Your task to perform on an android device: open wifi settings Image 0: 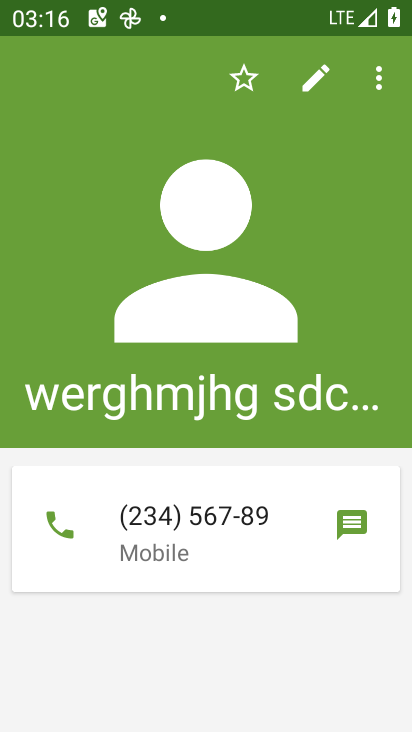
Step 0: press home button
Your task to perform on an android device: open wifi settings Image 1: 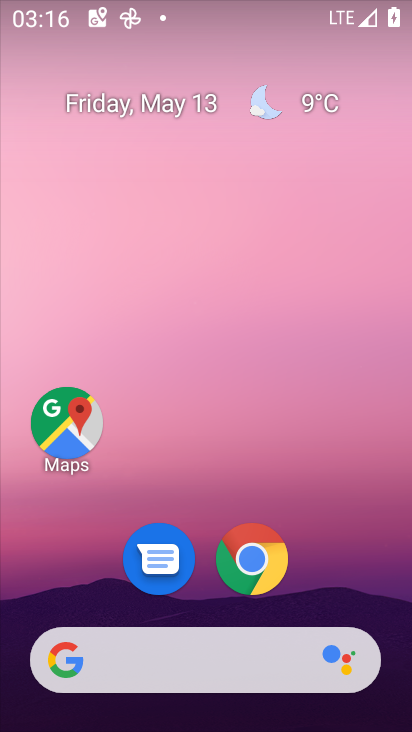
Step 1: drag from (396, 629) to (361, 331)
Your task to perform on an android device: open wifi settings Image 2: 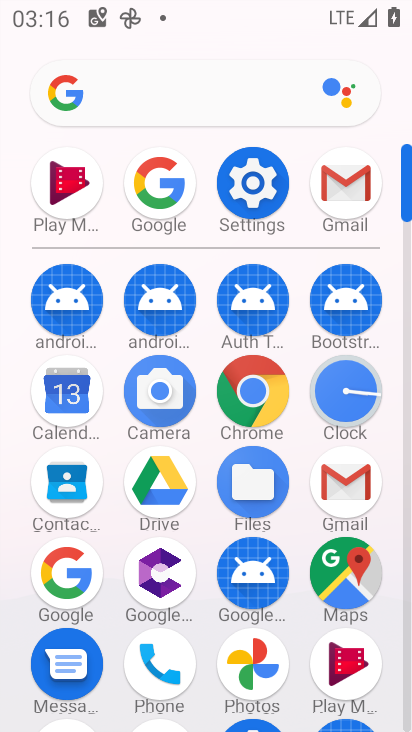
Step 2: click (269, 184)
Your task to perform on an android device: open wifi settings Image 3: 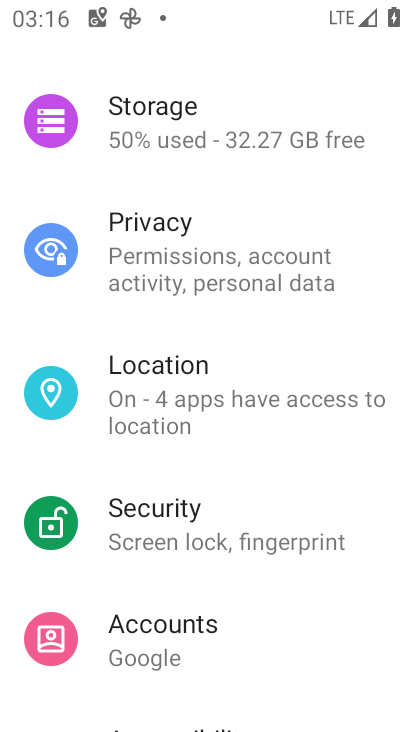
Step 3: drag from (355, 151) to (346, 414)
Your task to perform on an android device: open wifi settings Image 4: 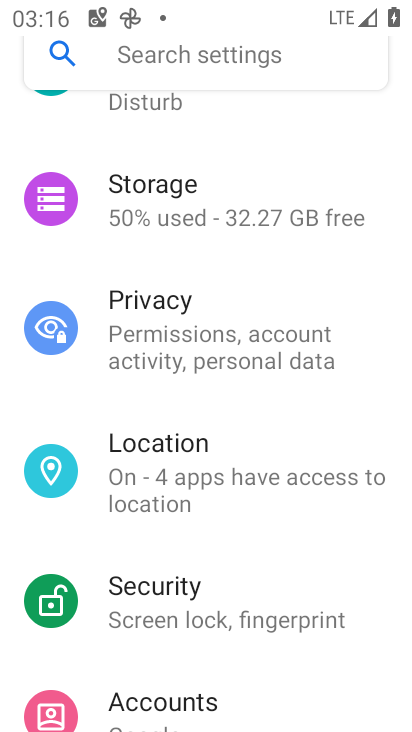
Step 4: drag from (320, 151) to (318, 499)
Your task to perform on an android device: open wifi settings Image 5: 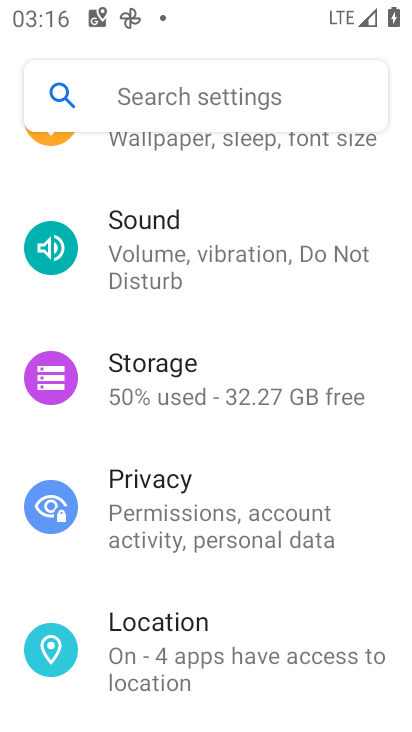
Step 5: drag from (305, 174) to (347, 562)
Your task to perform on an android device: open wifi settings Image 6: 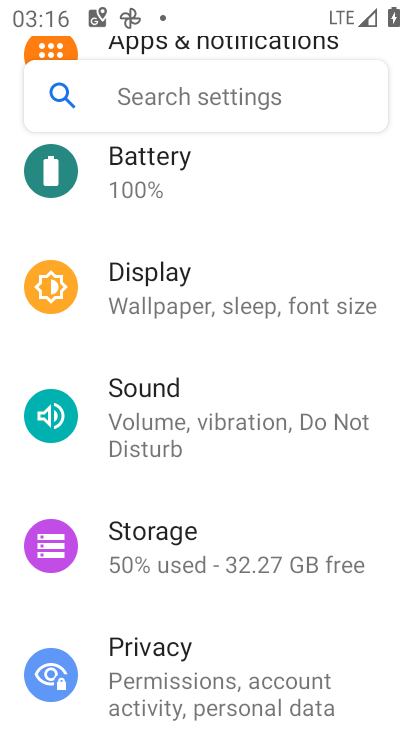
Step 6: drag from (310, 294) to (316, 550)
Your task to perform on an android device: open wifi settings Image 7: 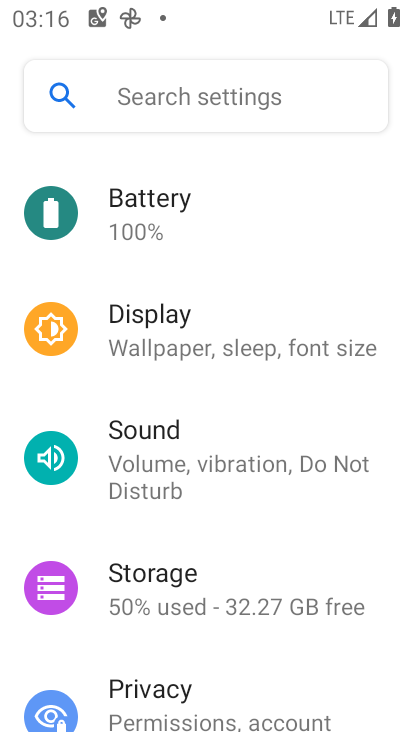
Step 7: drag from (299, 249) to (328, 564)
Your task to perform on an android device: open wifi settings Image 8: 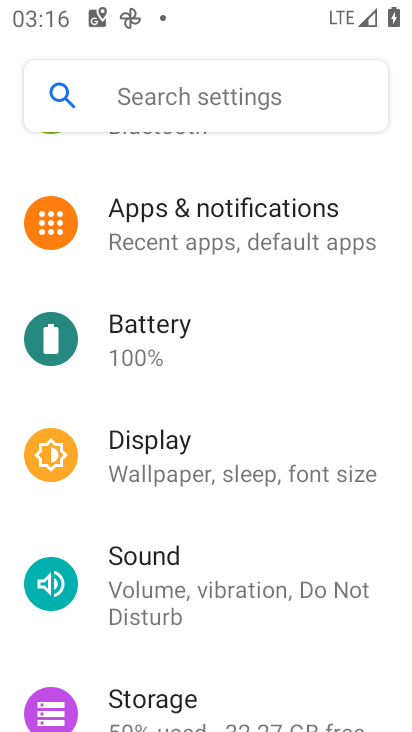
Step 8: drag from (319, 153) to (336, 622)
Your task to perform on an android device: open wifi settings Image 9: 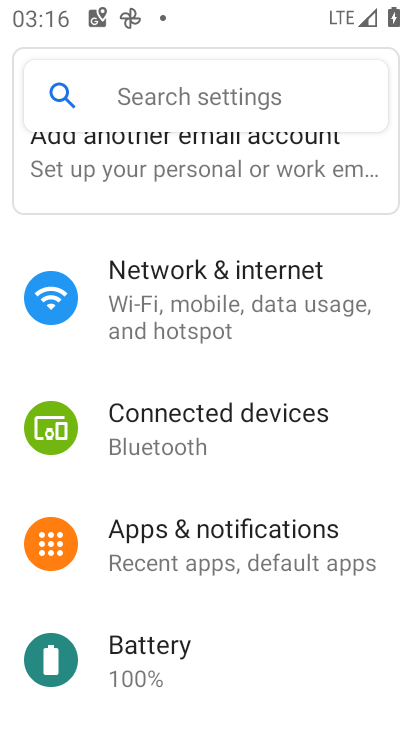
Step 9: drag from (297, 217) to (342, 457)
Your task to perform on an android device: open wifi settings Image 10: 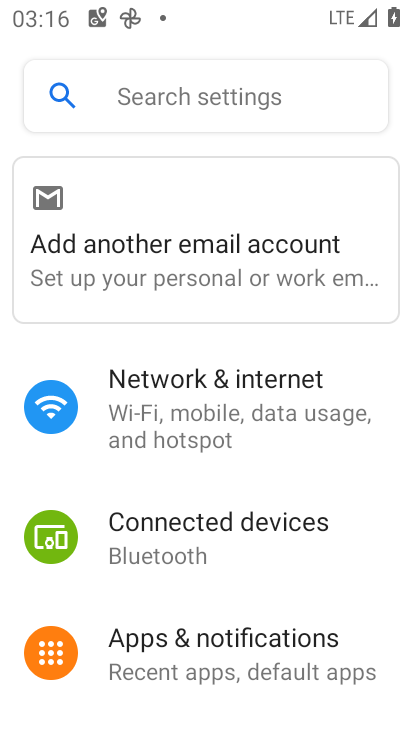
Step 10: drag from (316, 236) to (321, 403)
Your task to perform on an android device: open wifi settings Image 11: 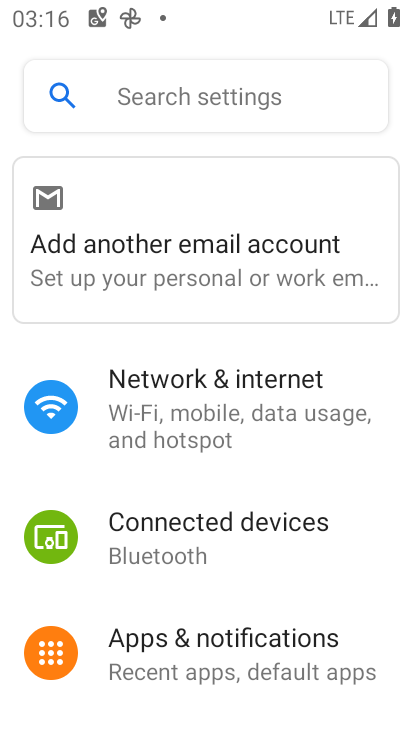
Step 11: click (158, 407)
Your task to perform on an android device: open wifi settings Image 12: 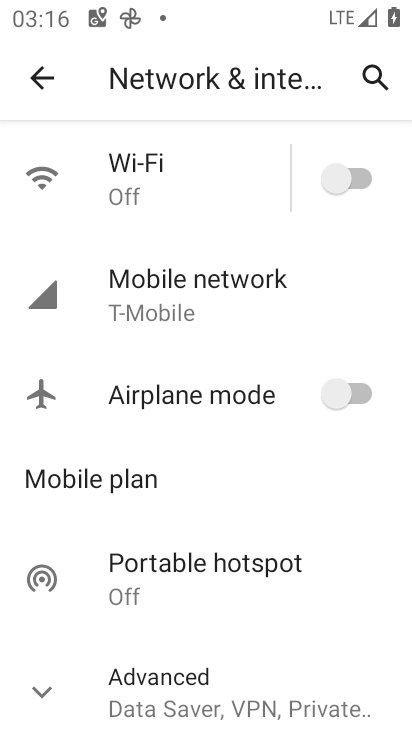
Step 12: click (367, 168)
Your task to perform on an android device: open wifi settings Image 13: 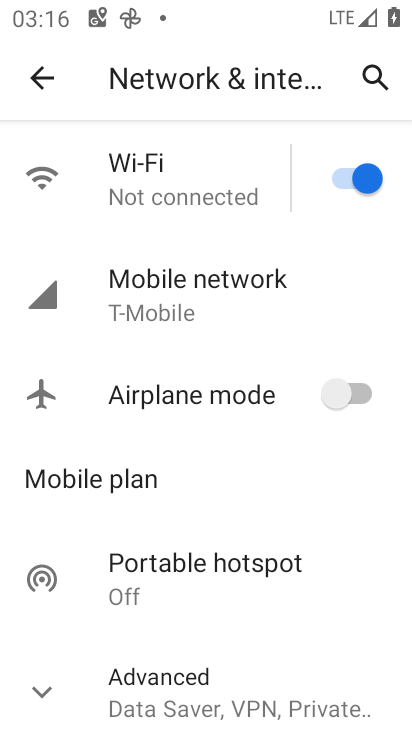
Step 13: task complete